Your task to perform on an android device: read, delete, or share a saved page in the chrome app Image 0: 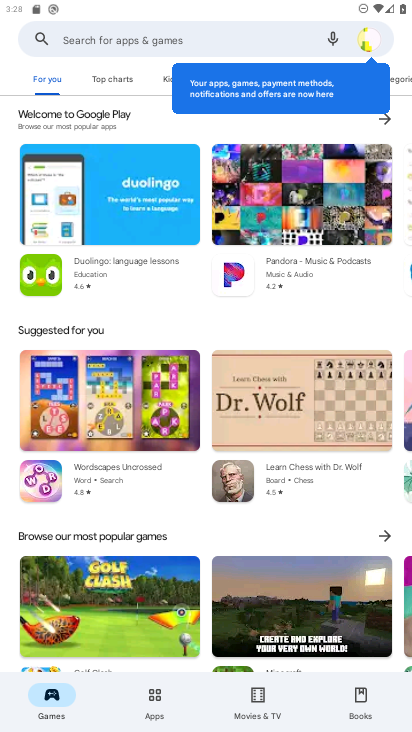
Step 0: press home button
Your task to perform on an android device: read, delete, or share a saved page in the chrome app Image 1: 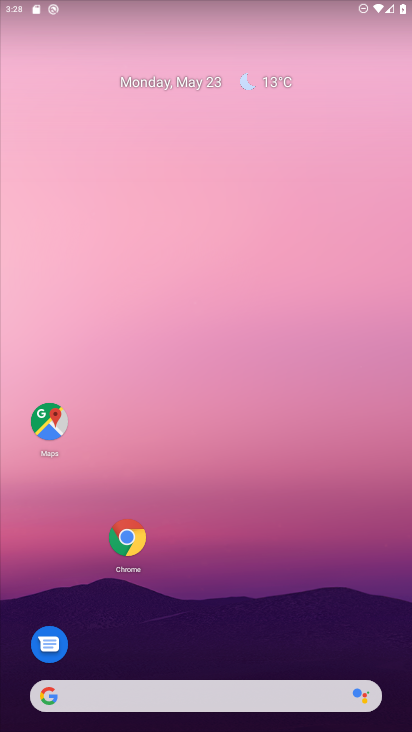
Step 1: click (133, 544)
Your task to perform on an android device: read, delete, or share a saved page in the chrome app Image 2: 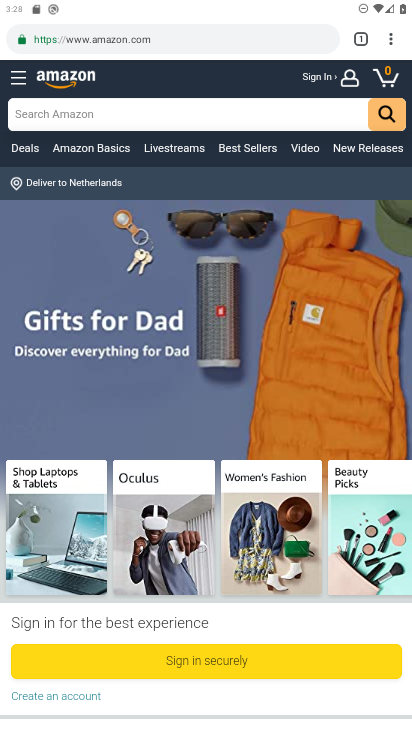
Step 2: task complete